Your task to perform on an android device: move an email to a new category in the gmail app Image 0: 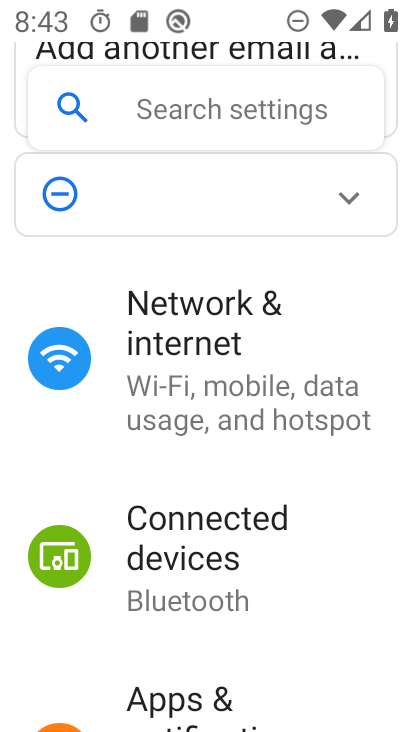
Step 0: press home button
Your task to perform on an android device: move an email to a new category in the gmail app Image 1: 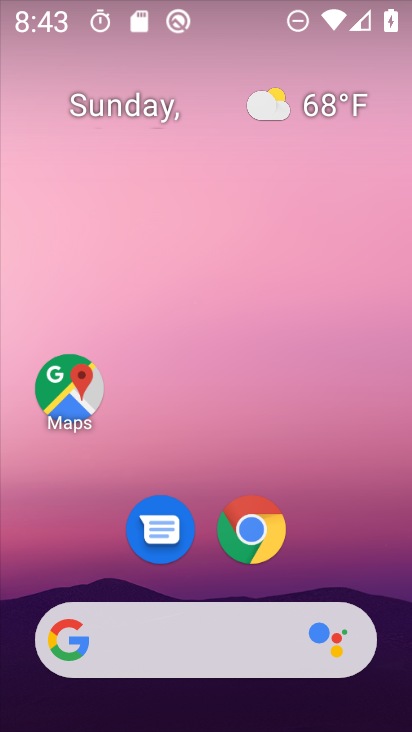
Step 1: drag from (212, 566) to (259, 39)
Your task to perform on an android device: move an email to a new category in the gmail app Image 2: 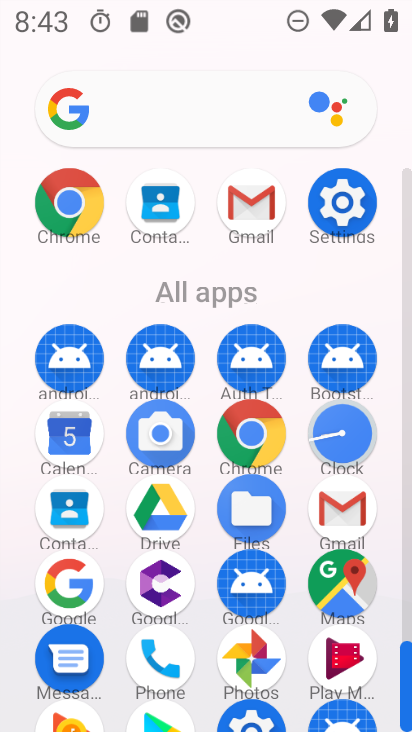
Step 2: click (250, 191)
Your task to perform on an android device: move an email to a new category in the gmail app Image 3: 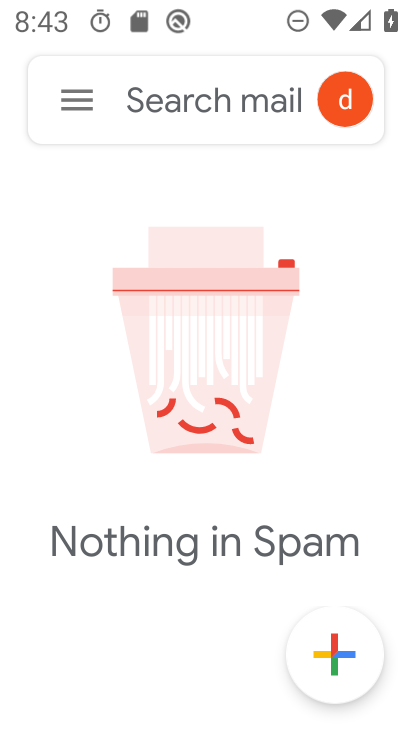
Step 3: click (79, 96)
Your task to perform on an android device: move an email to a new category in the gmail app Image 4: 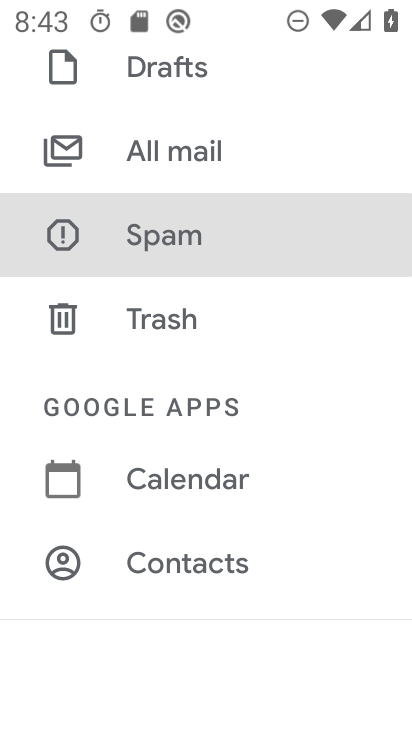
Step 4: click (109, 144)
Your task to perform on an android device: move an email to a new category in the gmail app Image 5: 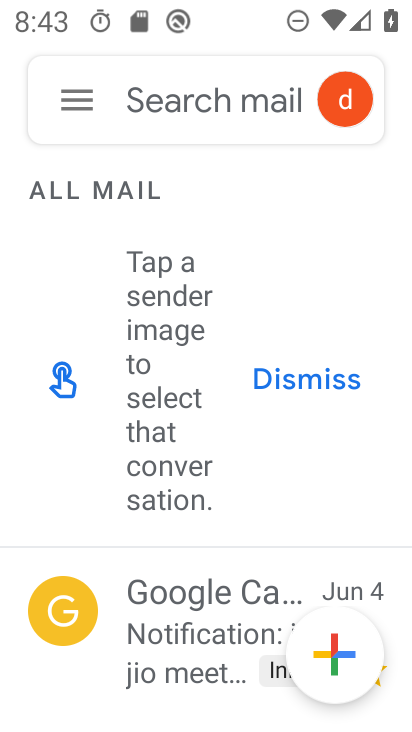
Step 5: drag from (200, 572) to (229, 241)
Your task to perform on an android device: move an email to a new category in the gmail app Image 6: 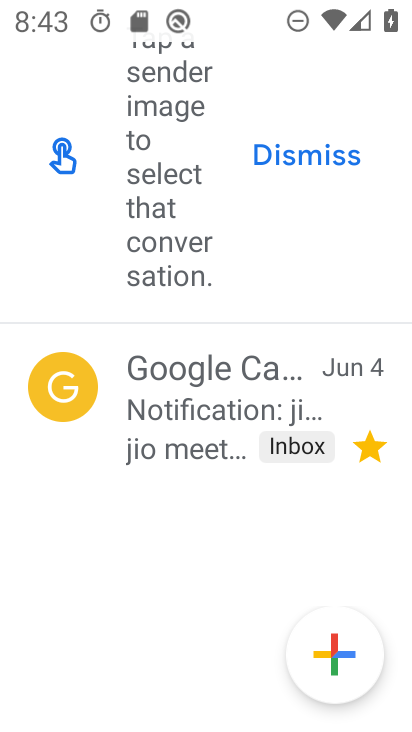
Step 6: click (61, 379)
Your task to perform on an android device: move an email to a new category in the gmail app Image 7: 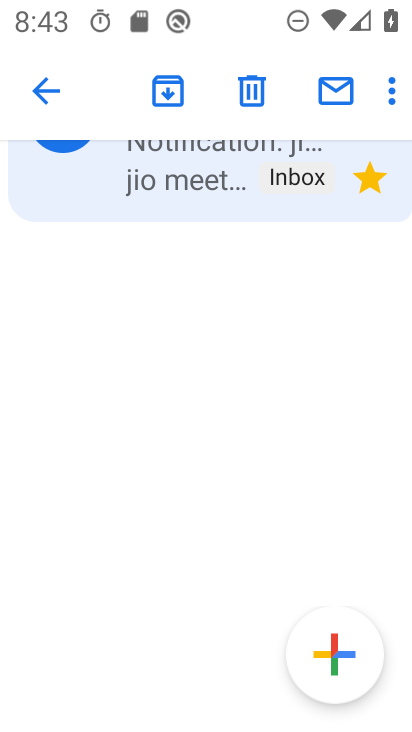
Step 7: click (393, 94)
Your task to perform on an android device: move an email to a new category in the gmail app Image 8: 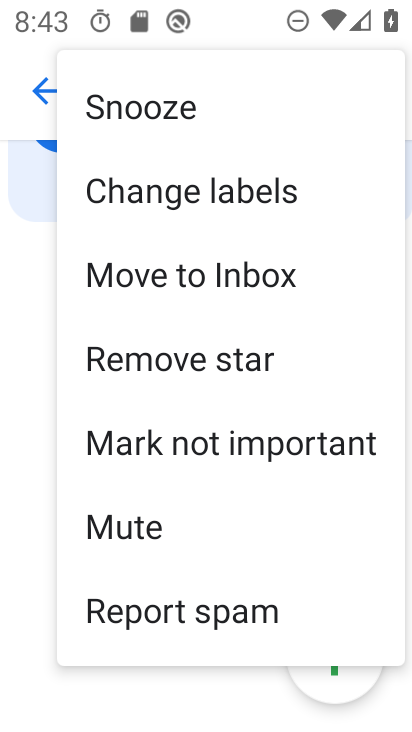
Step 8: click (301, 271)
Your task to perform on an android device: move an email to a new category in the gmail app Image 9: 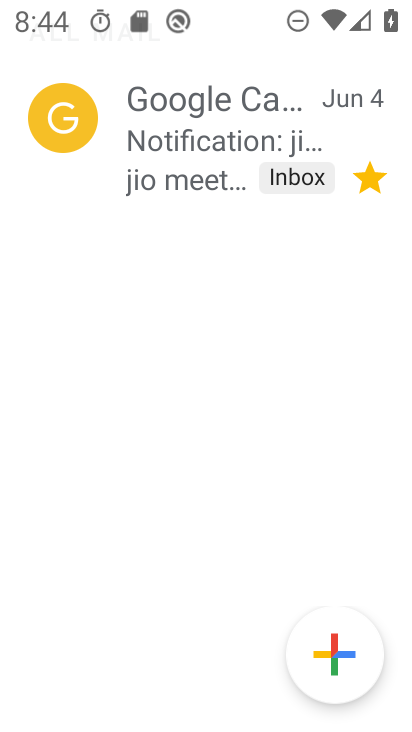
Step 9: task complete